Your task to perform on an android device: find photos in the google photos app Image 0: 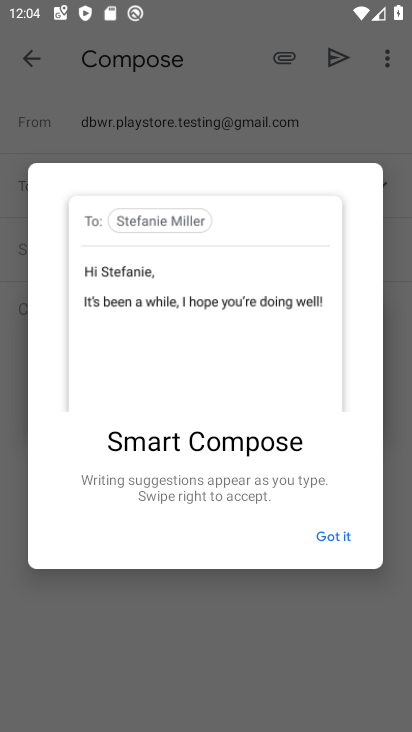
Step 0: press home button
Your task to perform on an android device: find photos in the google photos app Image 1: 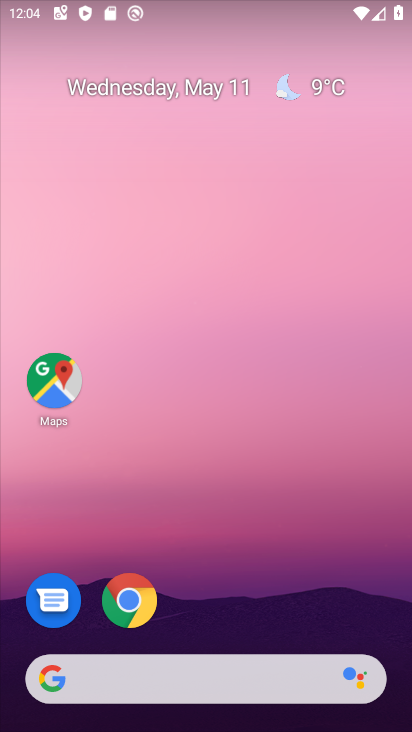
Step 1: drag from (219, 717) to (343, 55)
Your task to perform on an android device: find photos in the google photos app Image 2: 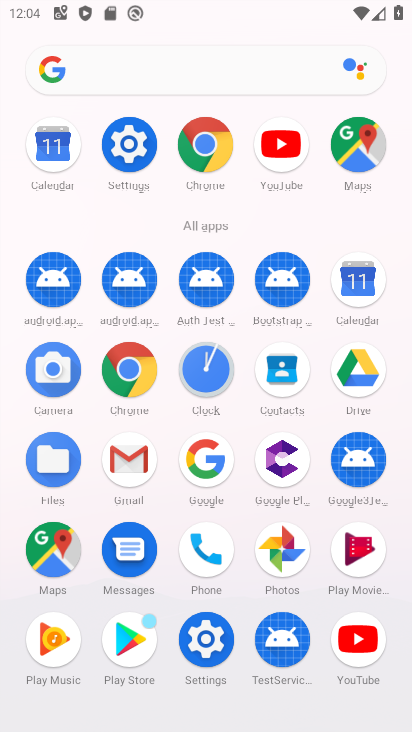
Step 2: click (288, 534)
Your task to perform on an android device: find photos in the google photos app Image 3: 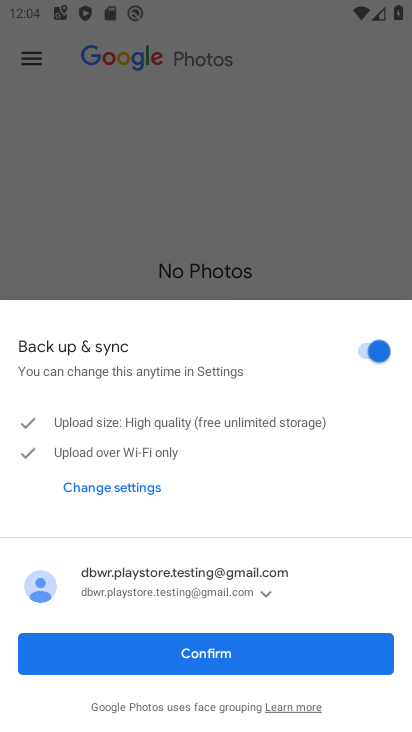
Step 3: click (302, 648)
Your task to perform on an android device: find photos in the google photos app Image 4: 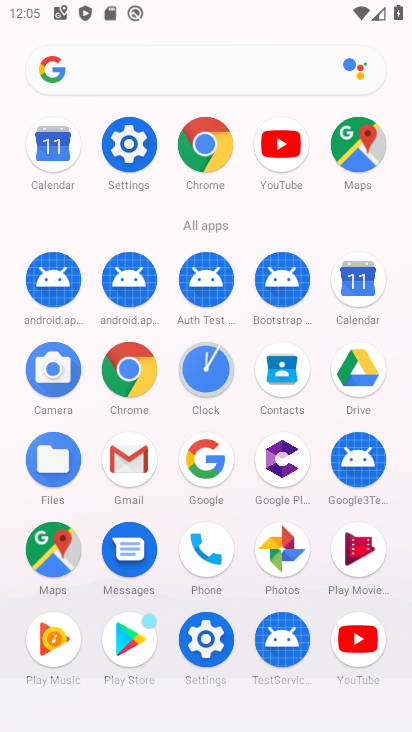
Step 4: click (275, 555)
Your task to perform on an android device: find photos in the google photos app Image 5: 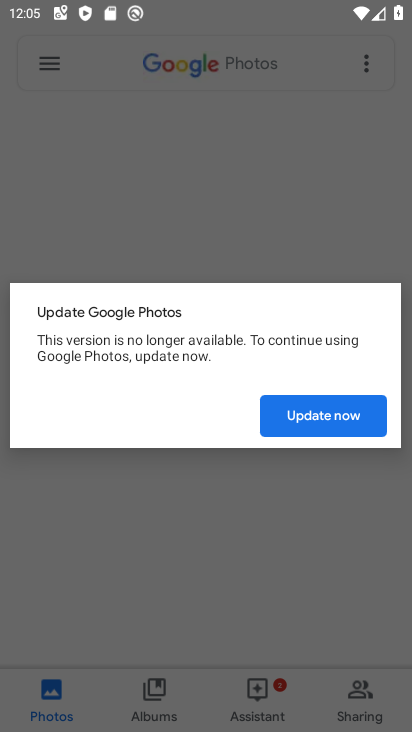
Step 5: click (357, 418)
Your task to perform on an android device: find photos in the google photos app Image 6: 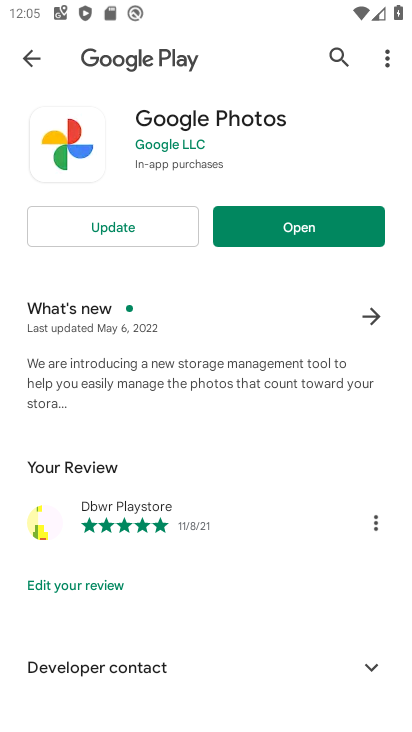
Step 6: click (95, 228)
Your task to perform on an android device: find photos in the google photos app Image 7: 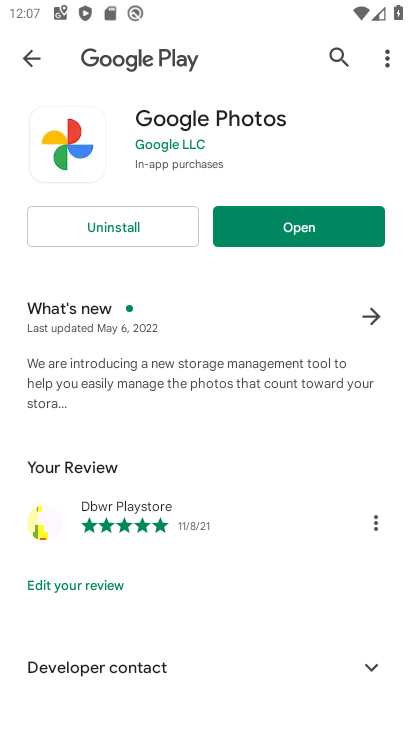
Step 7: press home button
Your task to perform on an android device: find photos in the google photos app Image 8: 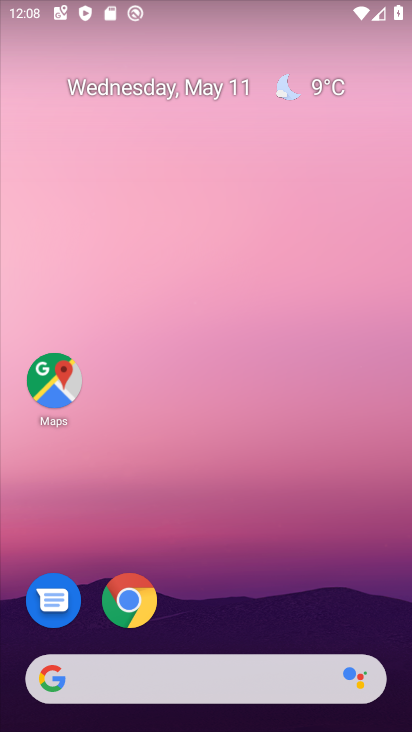
Step 8: drag from (228, 680) to (310, 153)
Your task to perform on an android device: find photos in the google photos app Image 9: 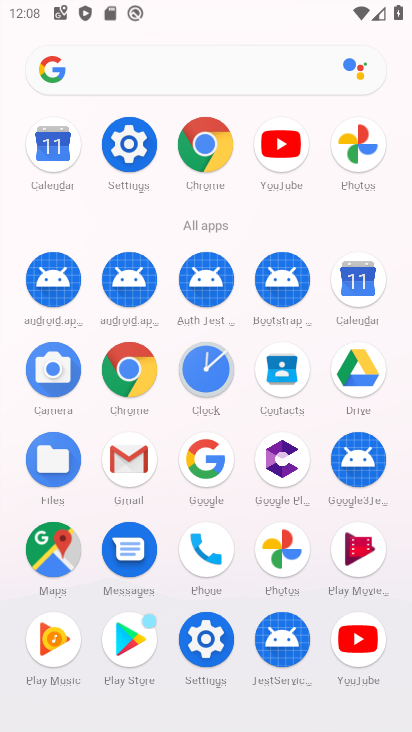
Step 9: click (280, 548)
Your task to perform on an android device: find photos in the google photos app Image 10: 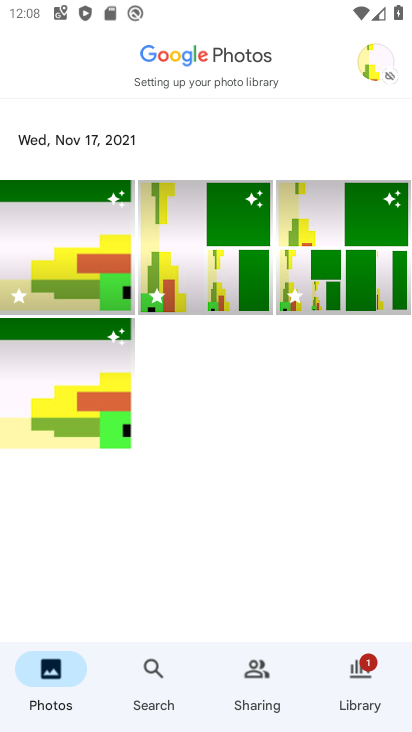
Step 10: task complete